Your task to perform on an android device: change keyboard looks Image 0: 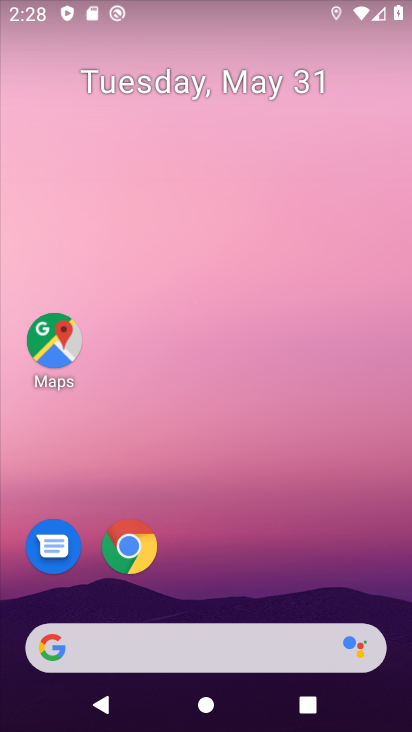
Step 0: drag from (260, 596) to (250, 15)
Your task to perform on an android device: change keyboard looks Image 1: 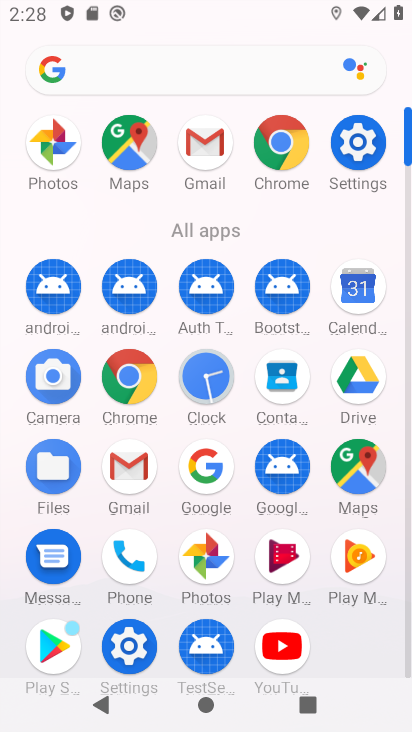
Step 1: click (350, 134)
Your task to perform on an android device: change keyboard looks Image 2: 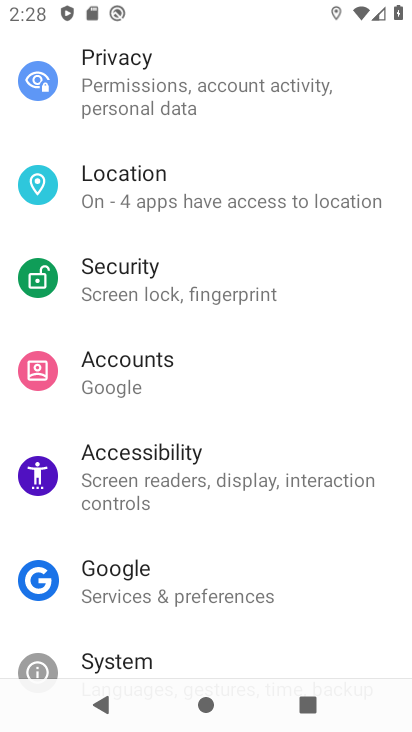
Step 2: drag from (244, 622) to (272, 231)
Your task to perform on an android device: change keyboard looks Image 3: 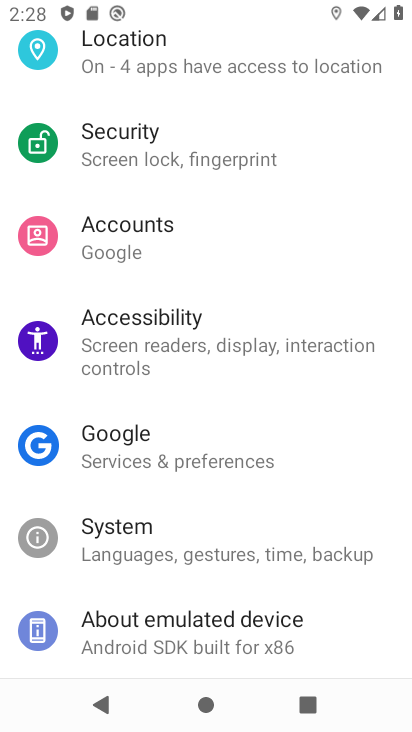
Step 3: click (266, 613)
Your task to perform on an android device: change keyboard looks Image 4: 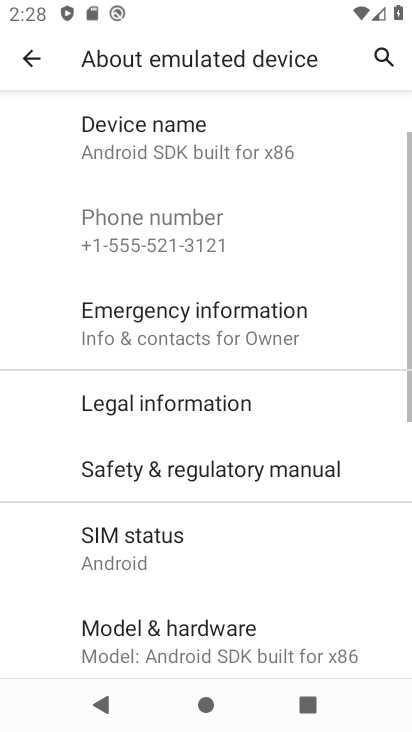
Step 4: click (38, 46)
Your task to perform on an android device: change keyboard looks Image 5: 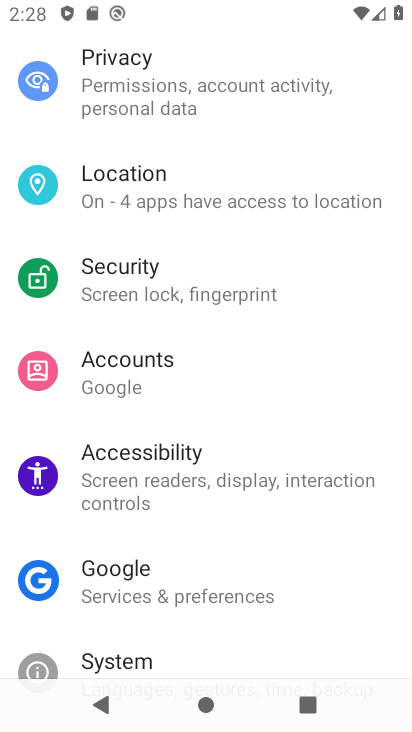
Step 5: click (152, 653)
Your task to perform on an android device: change keyboard looks Image 6: 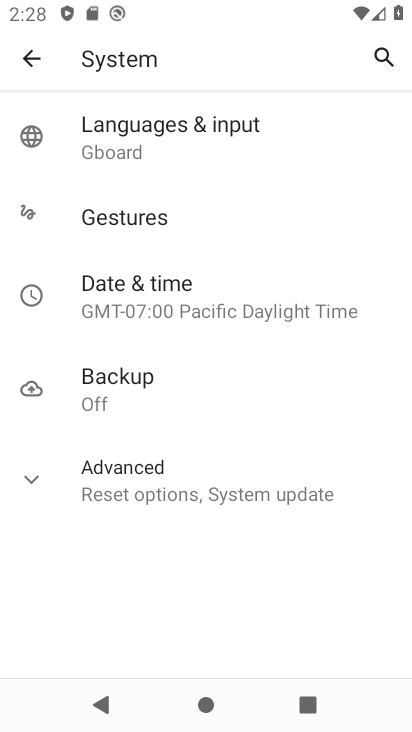
Step 6: click (191, 139)
Your task to perform on an android device: change keyboard looks Image 7: 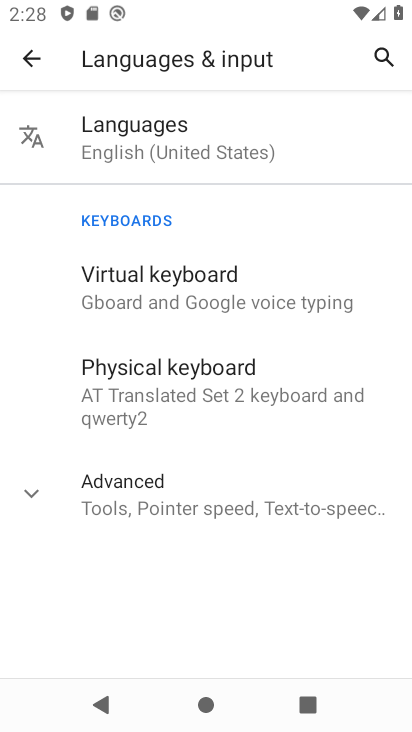
Step 7: click (179, 274)
Your task to perform on an android device: change keyboard looks Image 8: 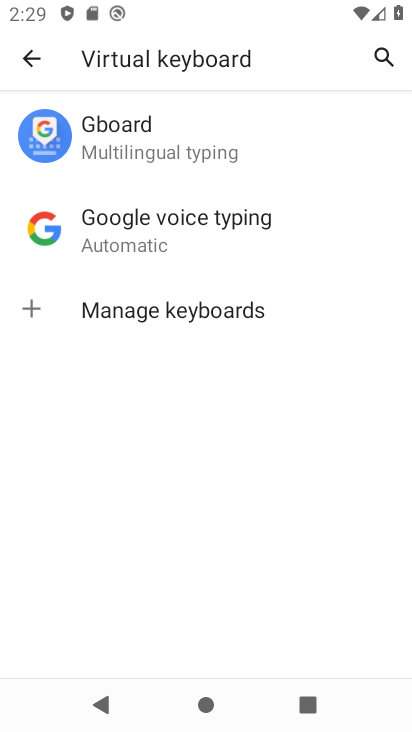
Step 8: click (174, 140)
Your task to perform on an android device: change keyboard looks Image 9: 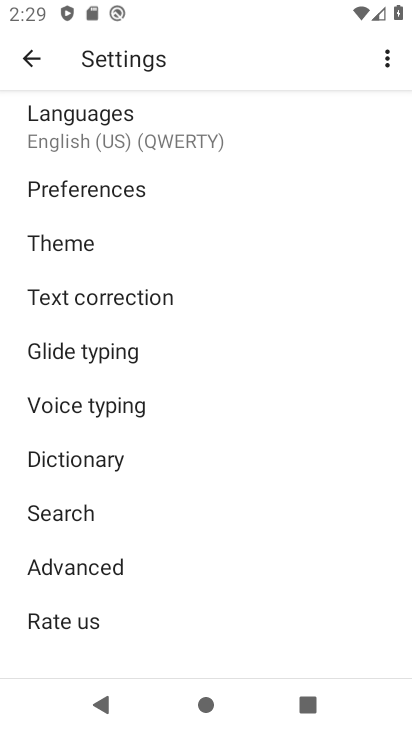
Step 9: click (107, 247)
Your task to perform on an android device: change keyboard looks Image 10: 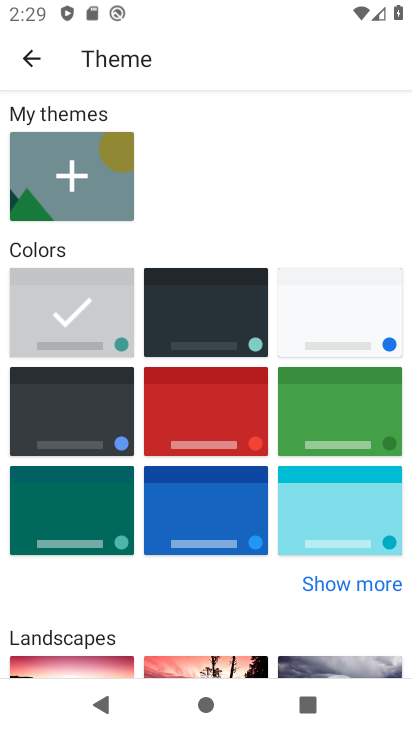
Step 10: click (236, 396)
Your task to perform on an android device: change keyboard looks Image 11: 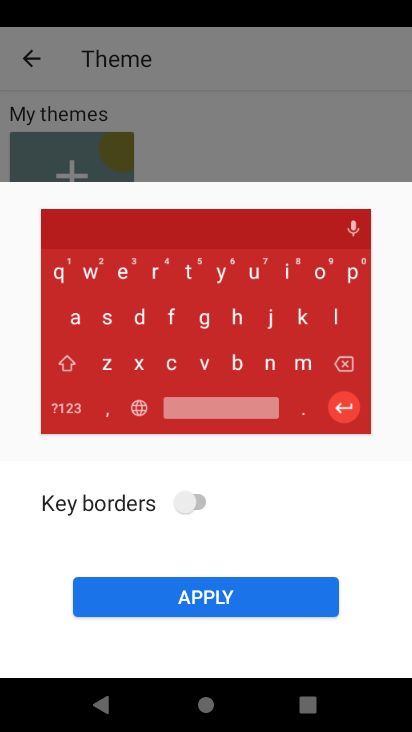
Step 11: click (195, 500)
Your task to perform on an android device: change keyboard looks Image 12: 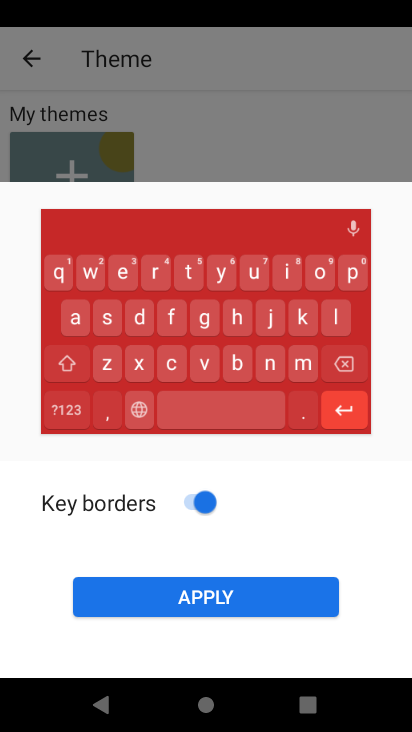
Step 12: click (214, 591)
Your task to perform on an android device: change keyboard looks Image 13: 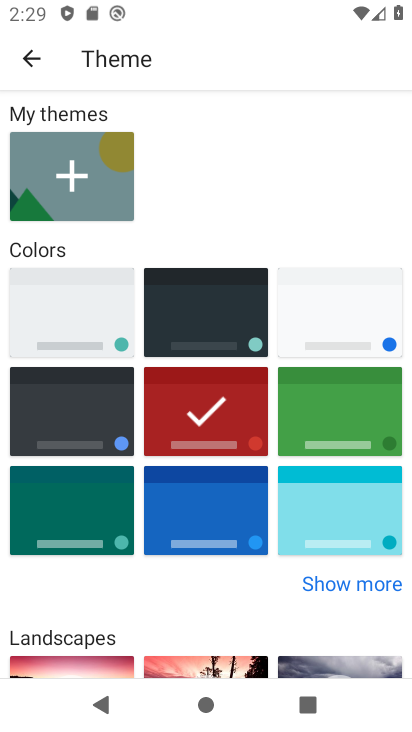
Step 13: task complete